Your task to perform on an android device: empty trash in the gmail app Image 0: 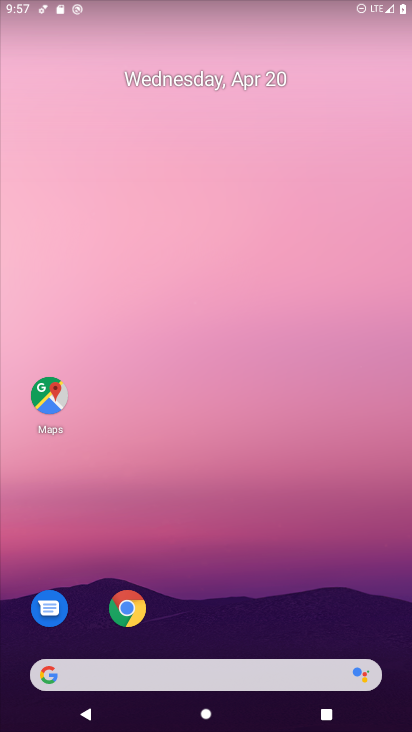
Step 0: drag from (255, 498) to (336, 2)
Your task to perform on an android device: empty trash in the gmail app Image 1: 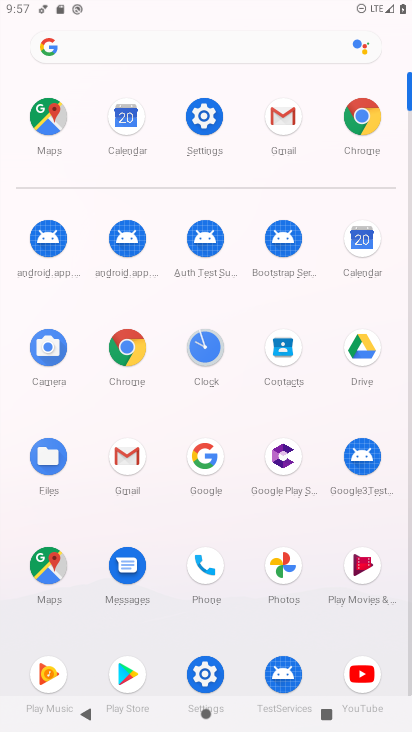
Step 1: click (117, 474)
Your task to perform on an android device: empty trash in the gmail app Image 2: 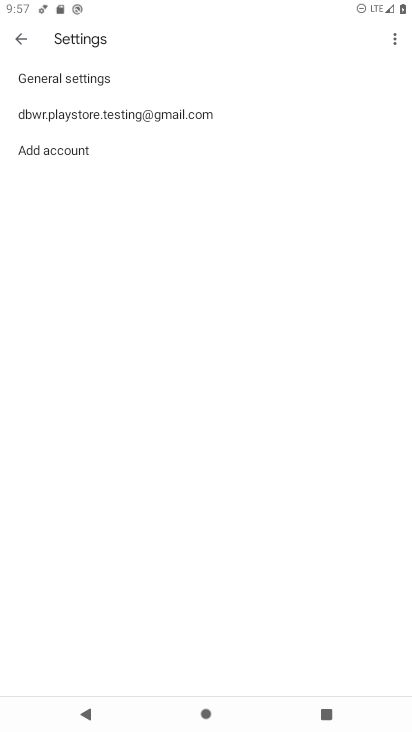
Step 2: click (16, 31)
Your task to perform on an android device: empty trash in the gmail app Image 3: 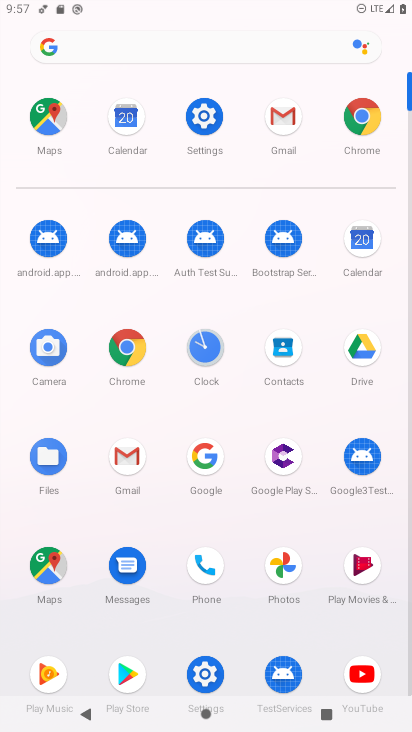
Step 3: click (122, 453)
Your task to perform on an android device: empty trash in the gmail app Image 4: 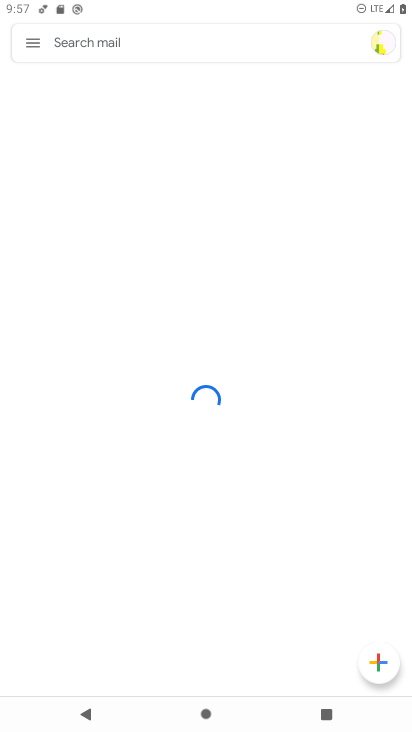
Step 4: click (31, 45)
Your task to perform on an android device: empty trash in the gmail app Image 5: 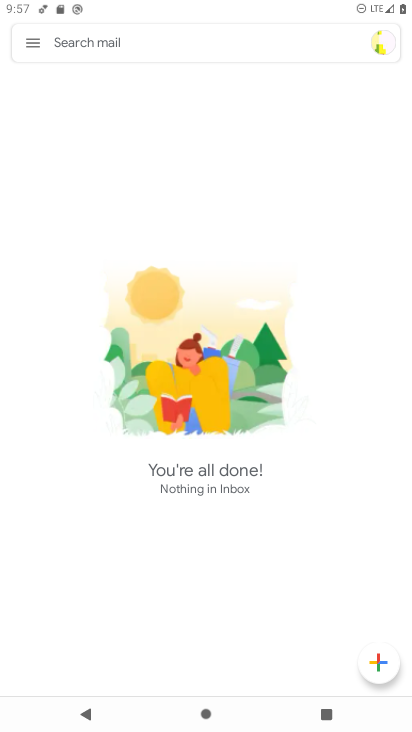
Step 5: click (31, 41)
Your task to perform on an android device: empty trash in the gmail app Image 6: 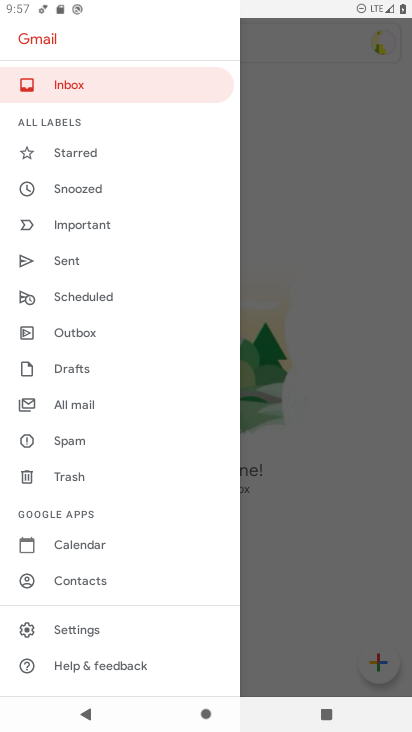
Step 6: click (73, 474)
Your task to perform on an android device: empty trash in the gmail app Image 7: 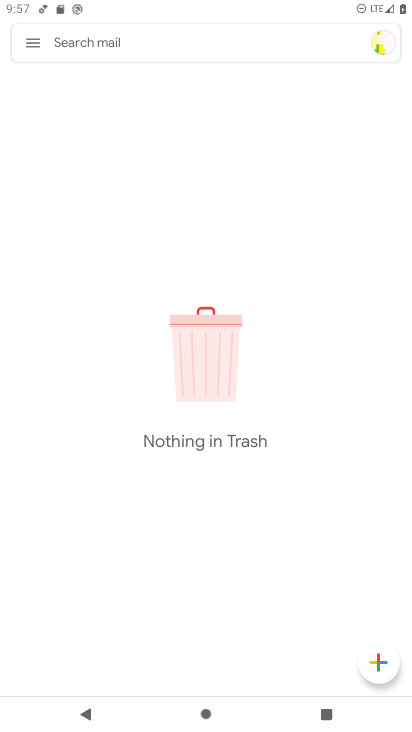
Step 7: task complete